Your task to perform on an android device: clear history in the chrome app Image 0: 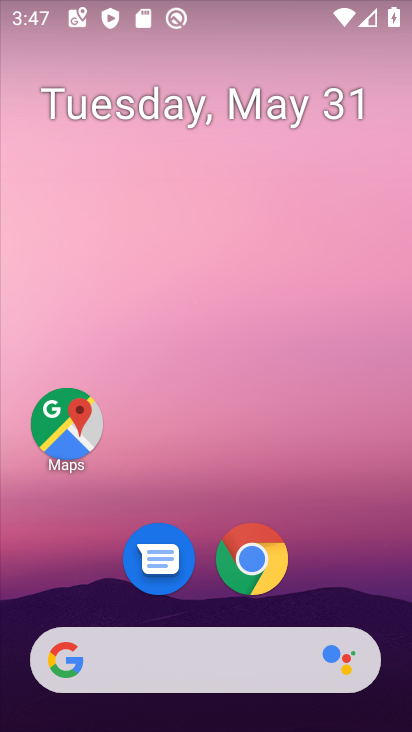
Step 0: click (266, 644)
Your task to perform on an android device: clear history in the chrome app Image 1: 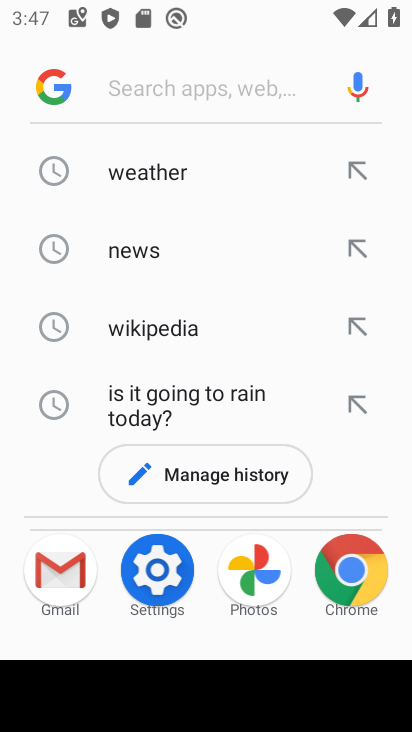
Step 1: click (254, 561)
Your task to perform on an android device: clear history in the chrome app Image 2: 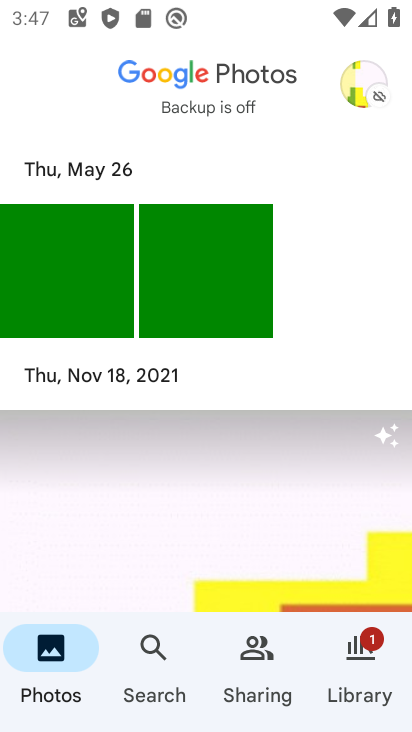
Step 2: press home button
Your task to perform on an android device: clear history in the chrome app Image 3: 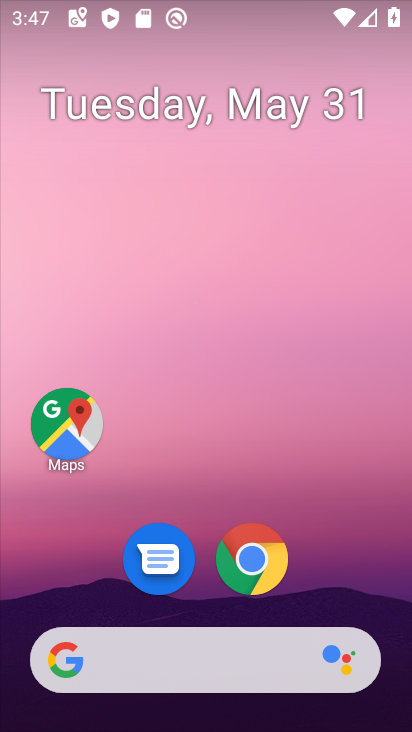
Step 3: click (249, 560)
Your task to perform on an android device: clear history in the chrome app Image 4: 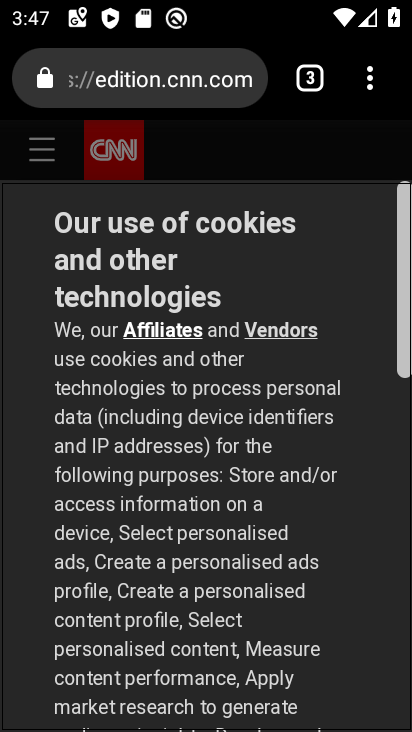
Step 4: click (372, 84)
Your task to perform on an android device: clear history in the chrome app Image 5: 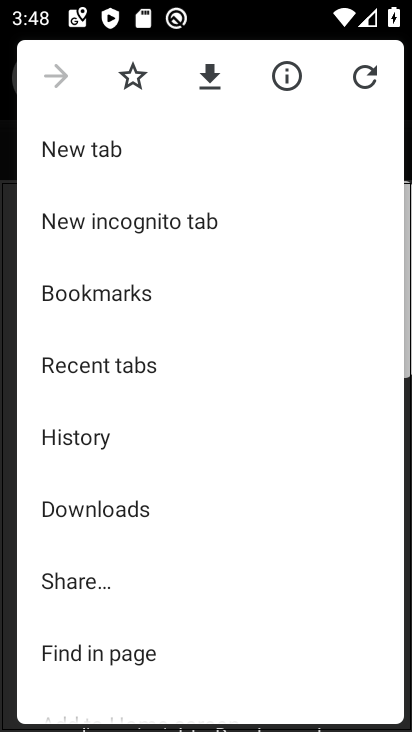
Step 5: drag from (118, 626) to (95, 407)
Your task to perform on an android device: clear history in the chrome app Image 6: 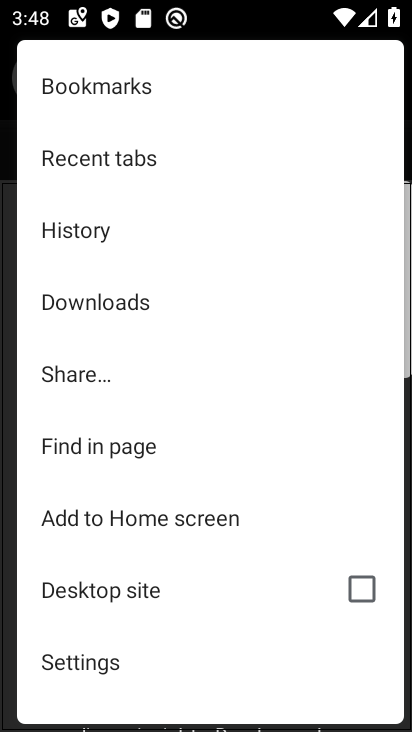
Step 6: click (81, 220)
Your task to perform on an android device: clear history in the chrome app Image 7: 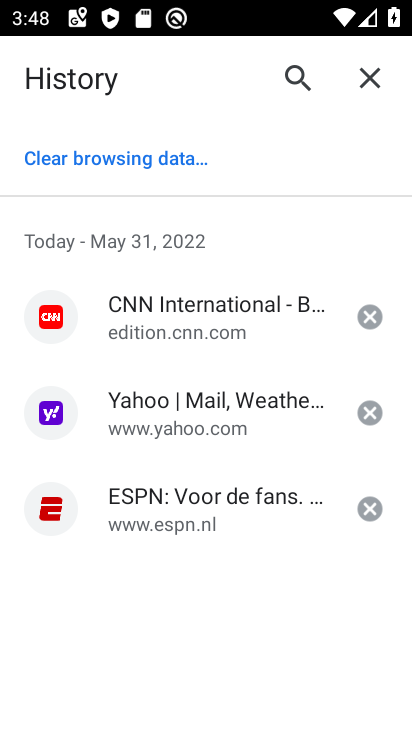
Step 7: click (68, 160)
Your task to perform on an android device: clear history in the chrome app Image 8: 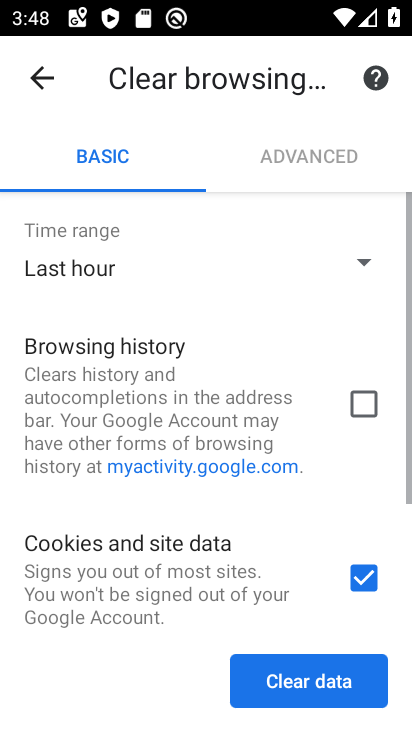
Step 8: drag from (241, 579) to (242, 494)
Your task to perform on an android device: clear history in the chrome app Image 9: 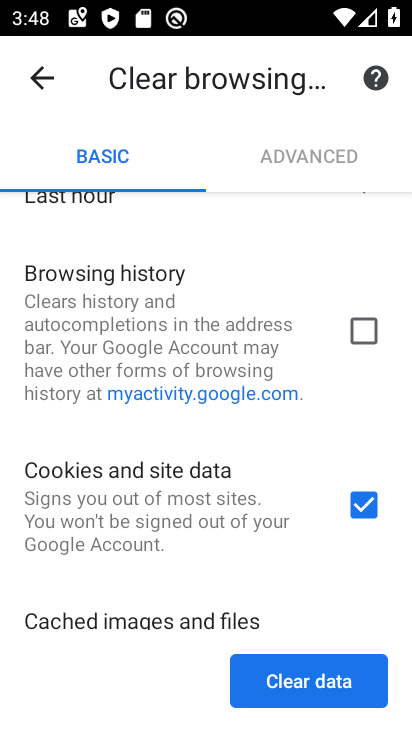
Step 9: click (361, 325)
Your task to perform on an android device: clear history in the chrome app Image 10: 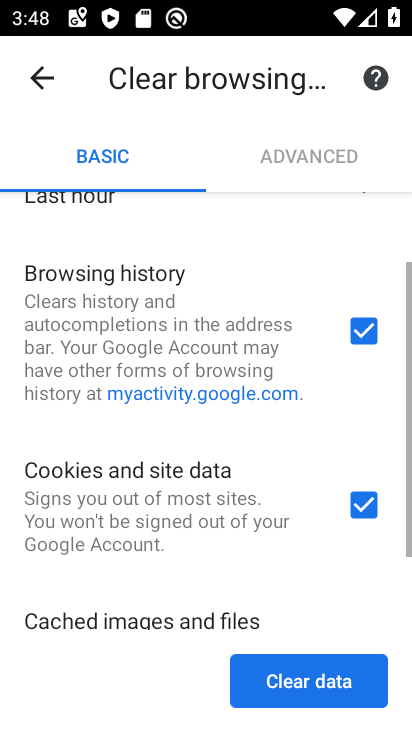
Step 10: click (364, 509)
Your task to perform on an android device: clear history in the chrome app Image 11: 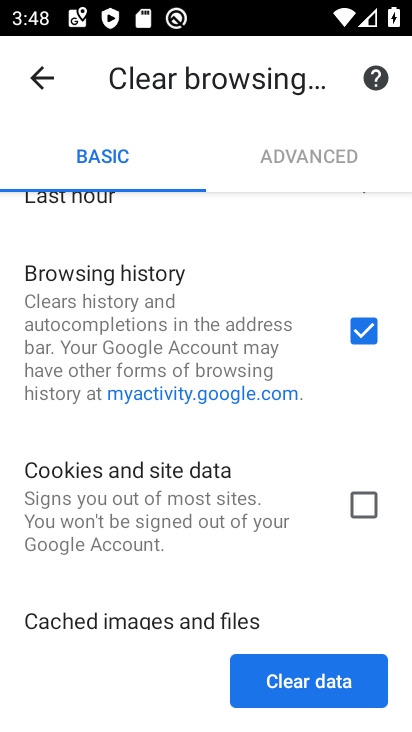
Step 11: drag from (278, 569) to (241, 336)
Your task to perform on an android device: clear history in the chrome app Image 12: 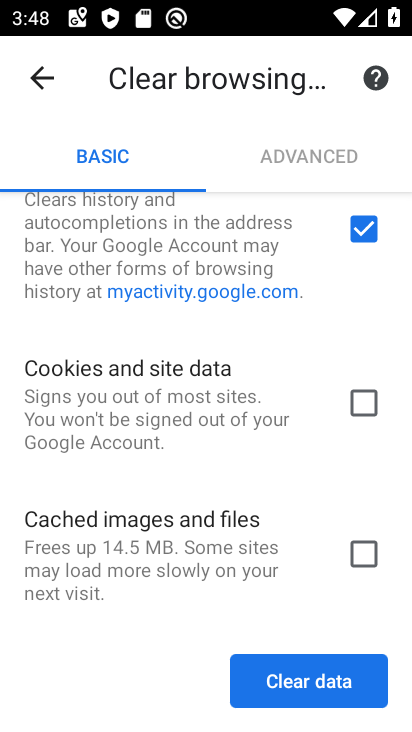
Step 12: click (329, 681)
Your task to perform on an android device: clear history in the chrome app Image 13: 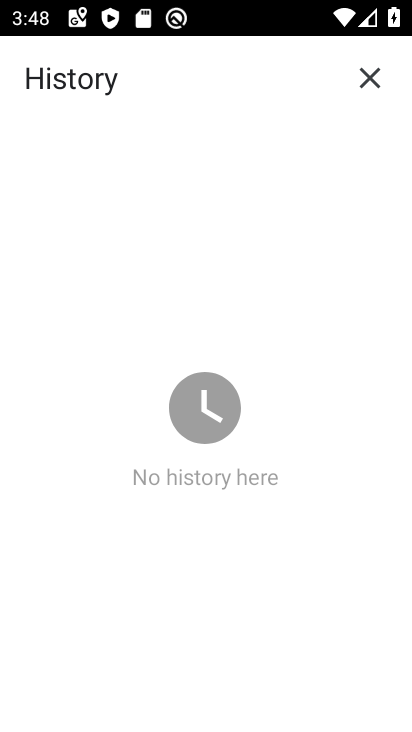
Step 13: task complete